Your task to perform on an android device: Open wifi settings Image 0: 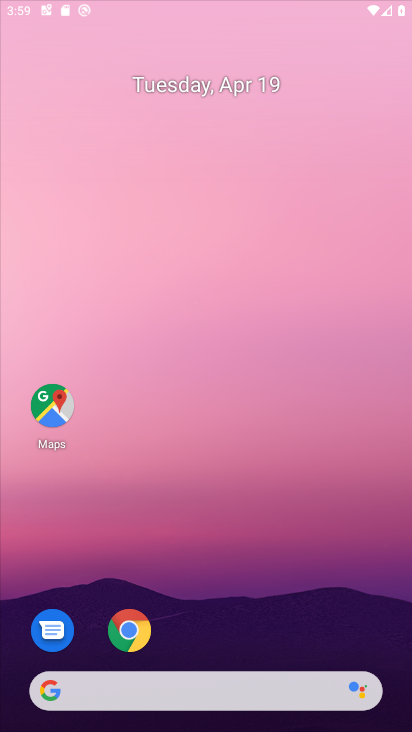
Step 0: click (314, 34)
Your task to perform on an android device: Open wifi settings Image 1: 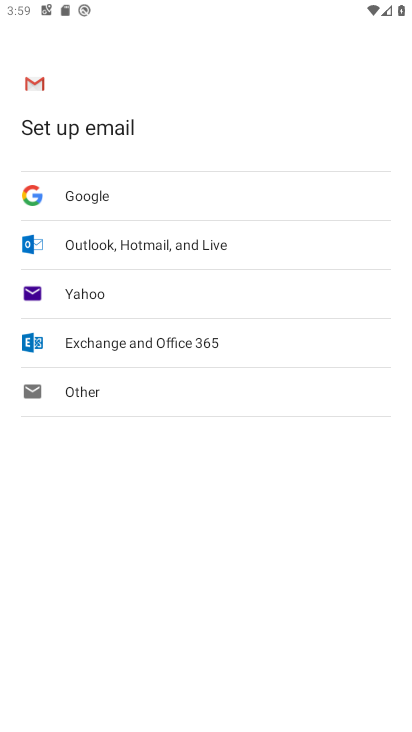
Step 1: press home button
Your task to perform on an android device: Open wifi settings Image 2: 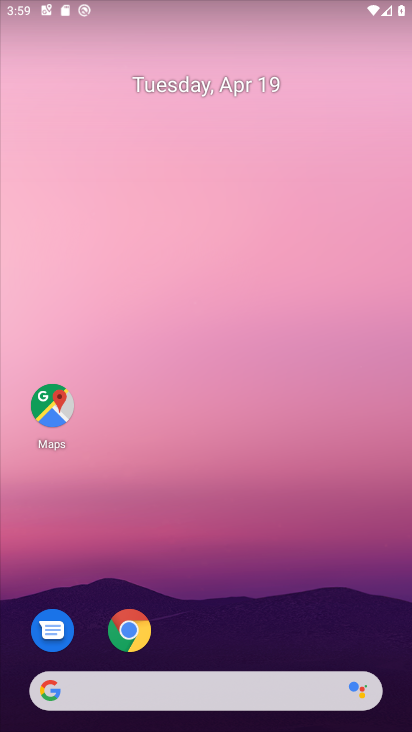
Step 2: drag from (276, 504) to (342, 171)
Your task to perform on an android device: Open wifi settings Image 3: 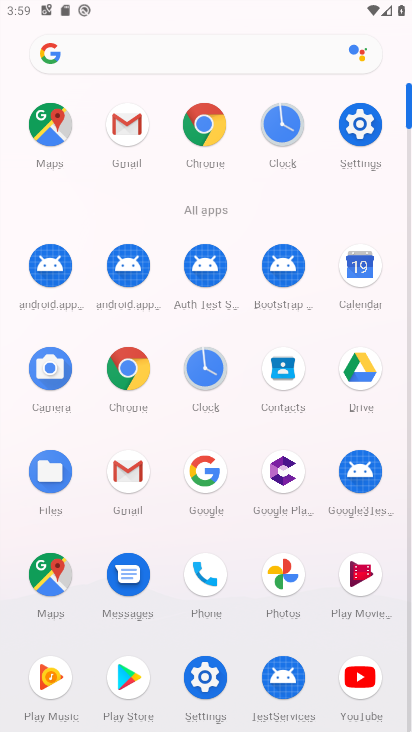
Step 3: click (364, 138)
Your task to perform on an android device: Open wifi settings Image 4: 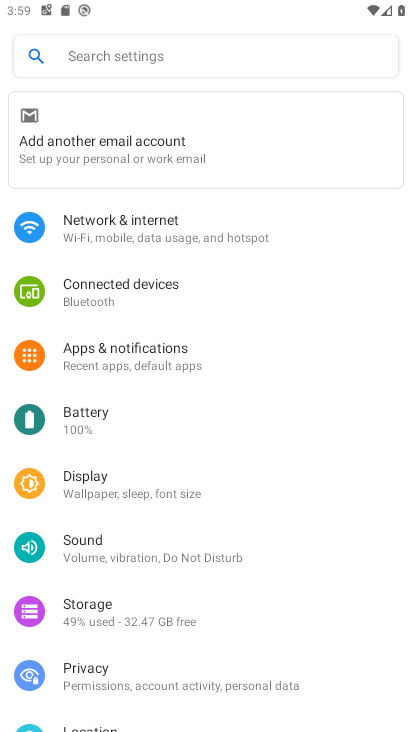
Step 4: click (106, 238)
Your task to perform on an android device: Open wifi settings Image 5: 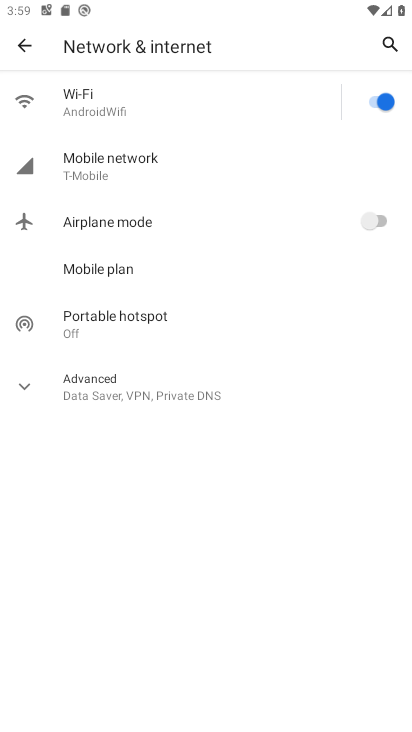
Step 5: click (121, 108)
Your task to perform on an android device: Open wifi settings Image 6: 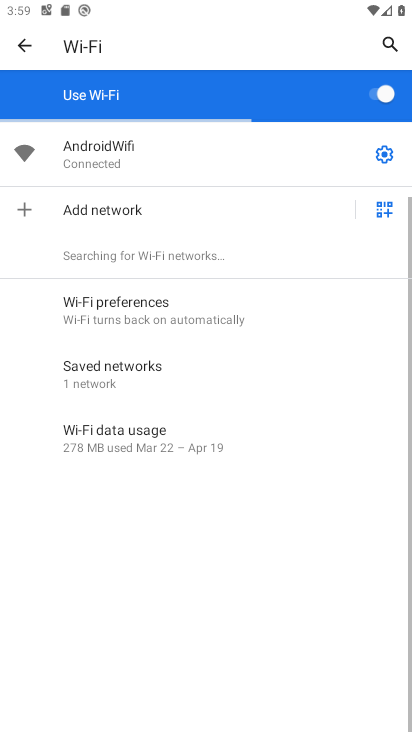
Step 6: task complete